Your task to perform on an android device: Go to Android settings Image 0: 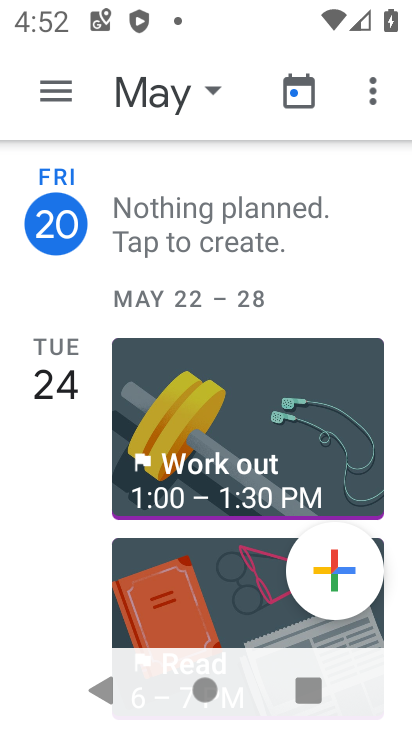
Step 0: press home button
Your task to perform on an android device: Go to Android settings Image 1: 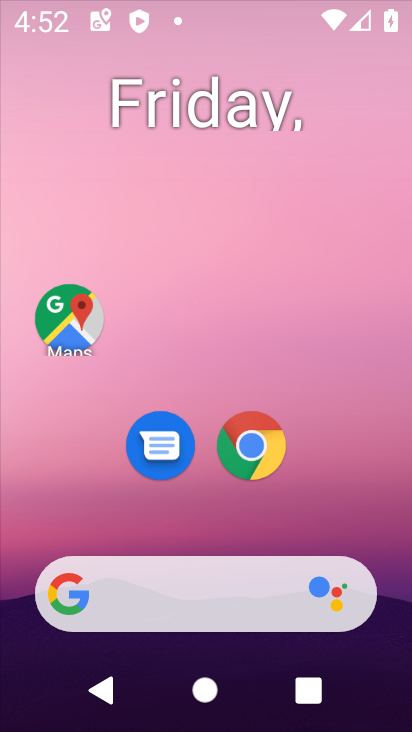
Step 1: drag from (235, 310) to (261, 93)
Your task to perform on an android device: Go to Android settings Image 2: 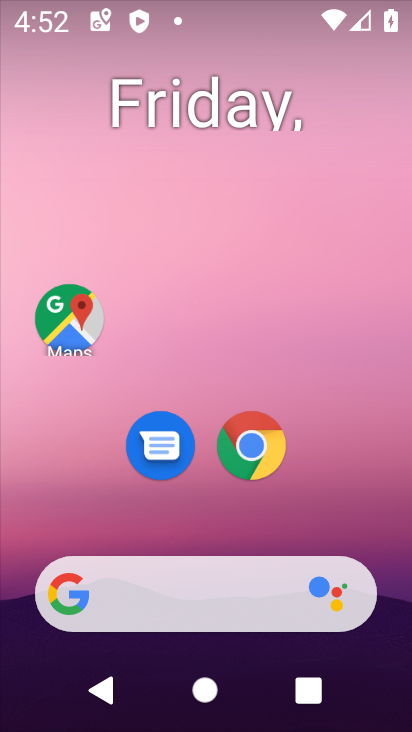
Step 2: drag from (201, 514) to (229, 0)
Your task to perform on an android device: Go to Android settings Image 3: 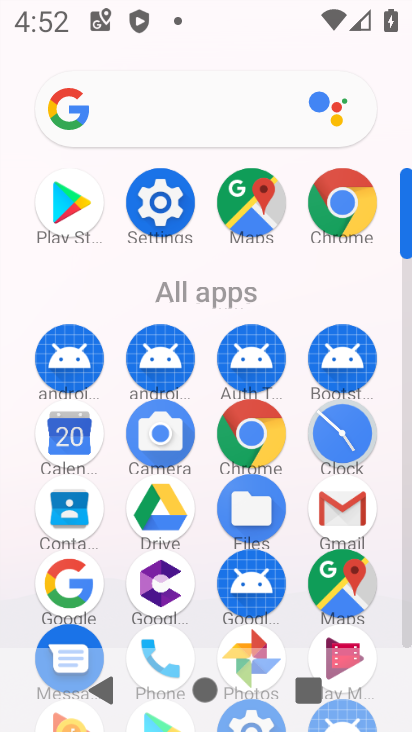
Step 3: click (148, 189)
Your task to perform on an android device: Go to Android settings Image 4: 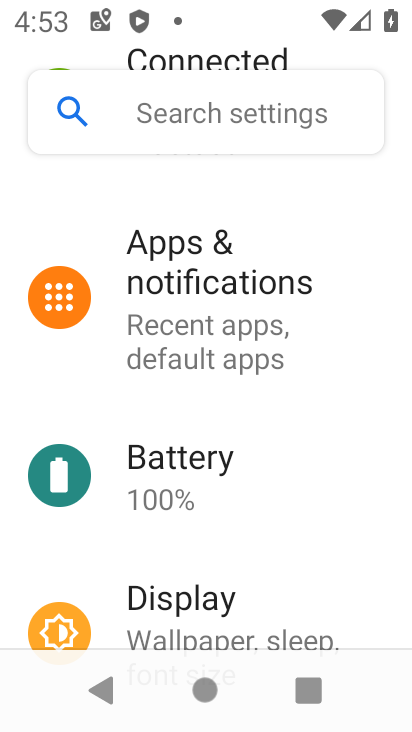
Step 4: task complete